Your task to perform on an android device: turn off picture-in-picture Image 0: 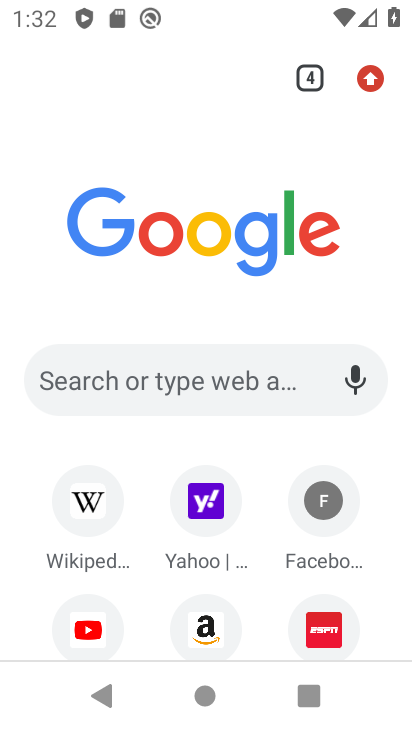
Step 0: press home button
Your task to perform on an android device: turn off picture-in-picture Image 1: 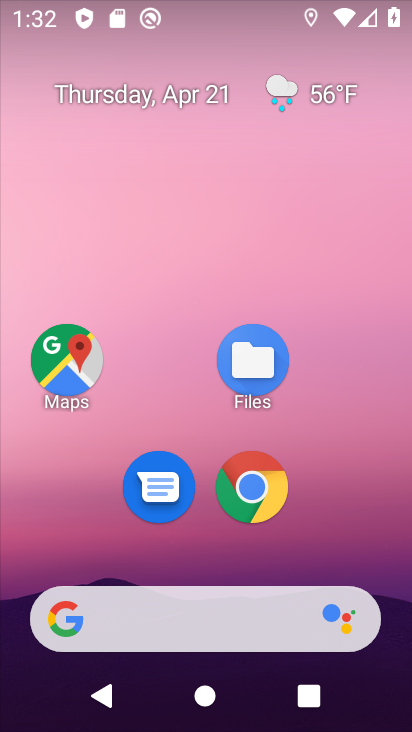
Step 1: drag from (372, 544) to (399, 99)
Your task to perform on an android device: turn off picture-in-picture Image 2: 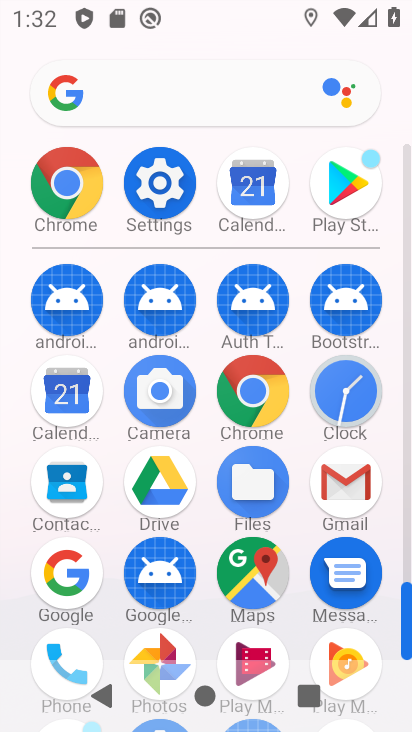
Step 2: click (164, 193)
Your task to perform on an android device: turn off picture-in-picture Image 3: 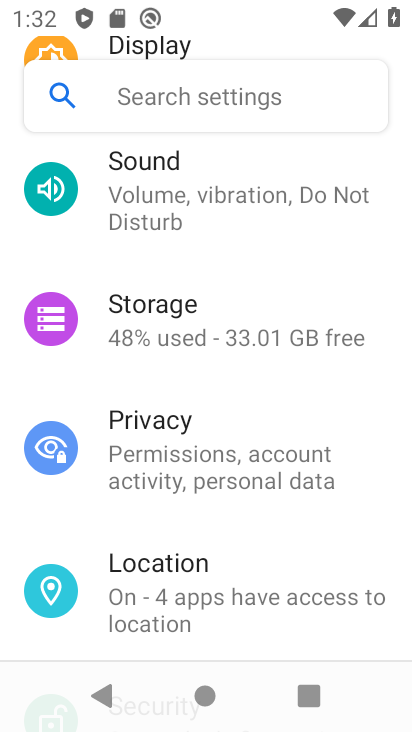
Step 3: drag from (311, 272) to (312, 516)
Your task to perform on an android device: turn off picture-in-picture Image 4: 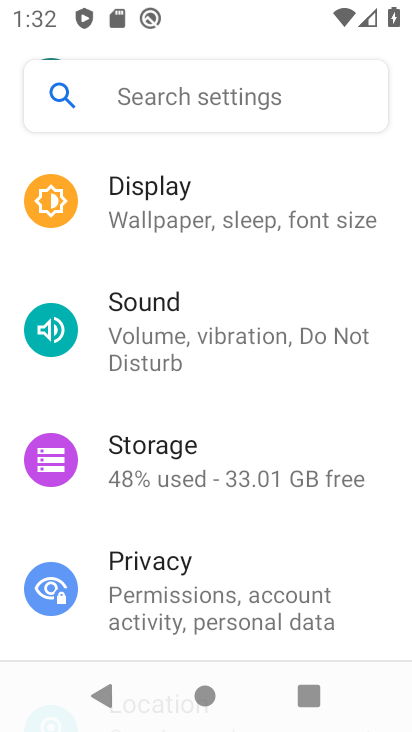
Step 4: drag from (320, 206) to (320, 471)
Your task to perform on an android device: turn off picture-in-picture Image 5: 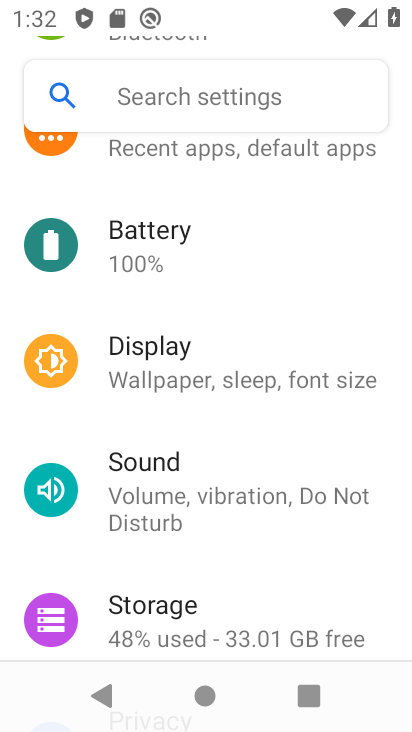
Step 5: drag from (291, 244) to (295, 454)
Your task to perform on an android device: turn off picture-in-picture Image 6: 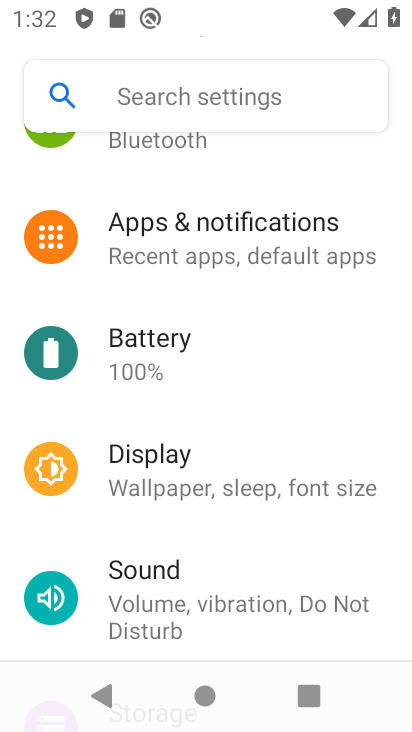
Step 6: click (279, 250)
Your task to perform on an android device: turn off picture-in-picture Image 7: 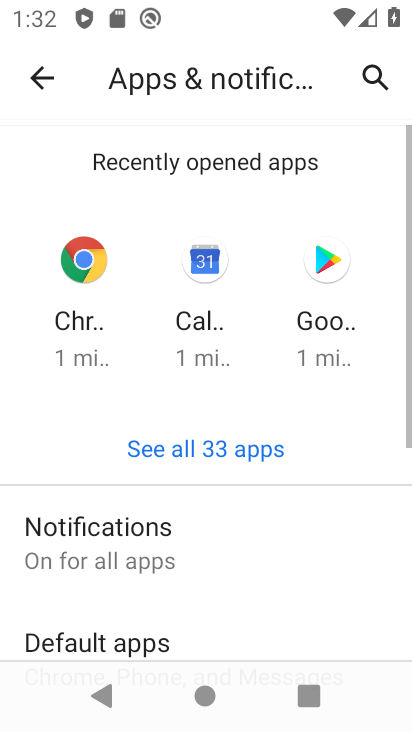
Step 7: drag from (278, 574) to (284, 243)
Your task to perform on an android device: turn off picture-in-picture Image 8: 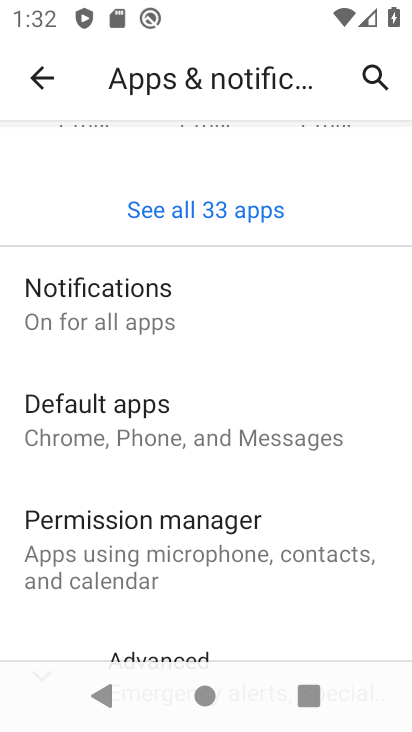
Step 8: drag from (264, 560) to (288, 307)
Your task to perform on an android device: turn off picture-in-picture Image 9: 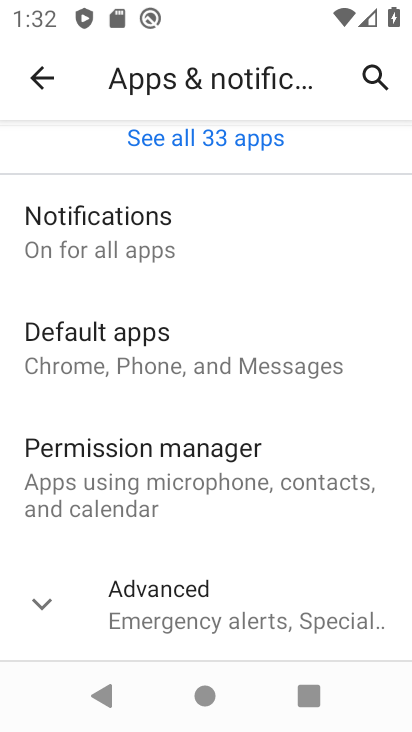
Step 9: click (279, 612)
Your task to perform on an android device: turn off picture-in-picture Image 10: 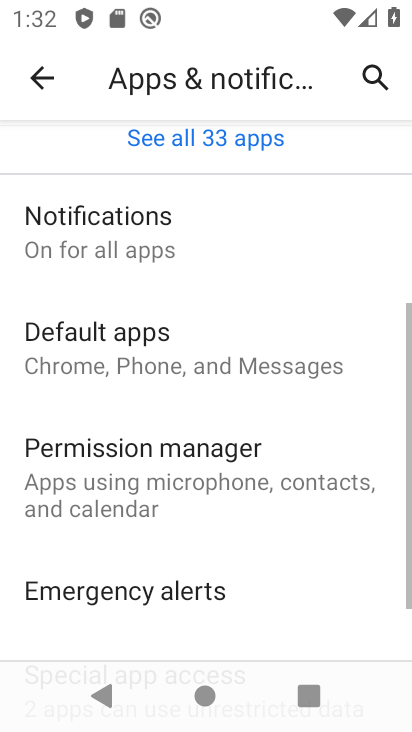
Step 10: drag from (279, 595) to (281, 273)
Your task to perform on an android device: turn off picture-in-picture Image 11: 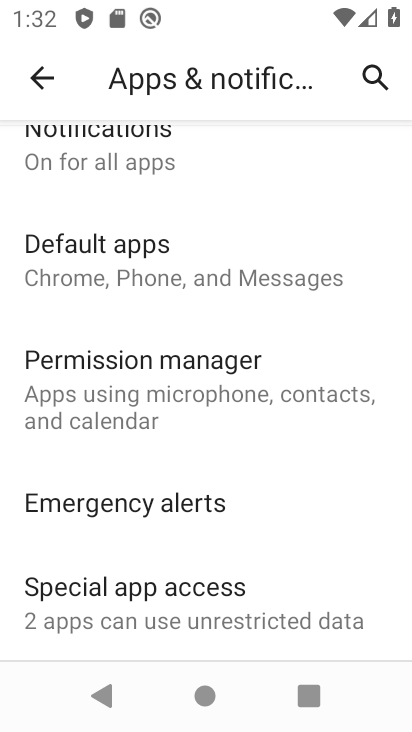
Step 11: click (239, 589)
Your task to perform on an android device: turn off picture-in-picture Image 12: 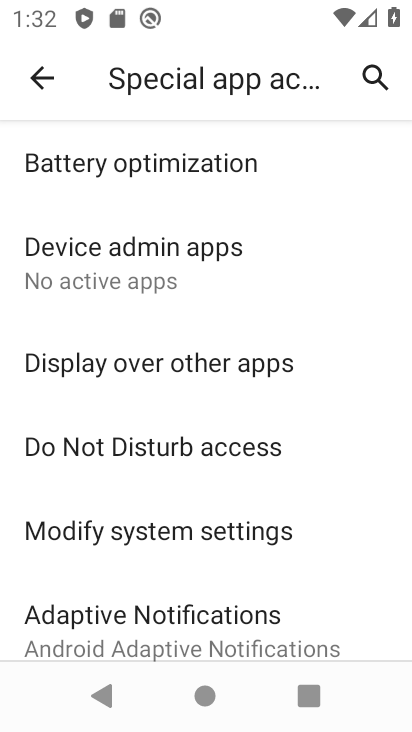
Step 12: drag from (305, 574) to (301, 275)
Your task to perform on an android device: turn off picture-in-picture Image 13: 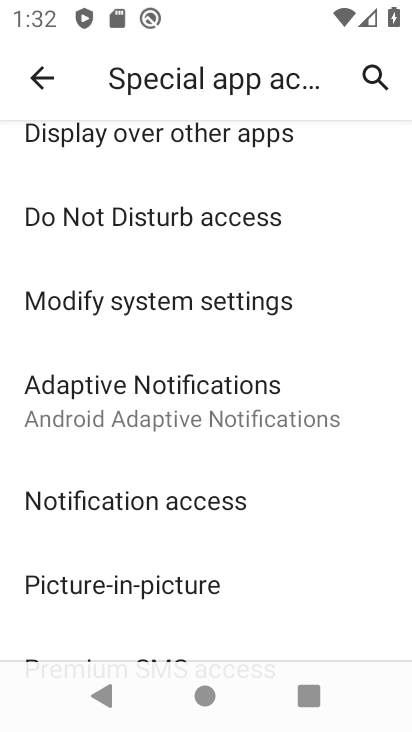
Step 13: click (213, 580)
Your task to perform on an android device: turn off picture-in-picture Image 14: 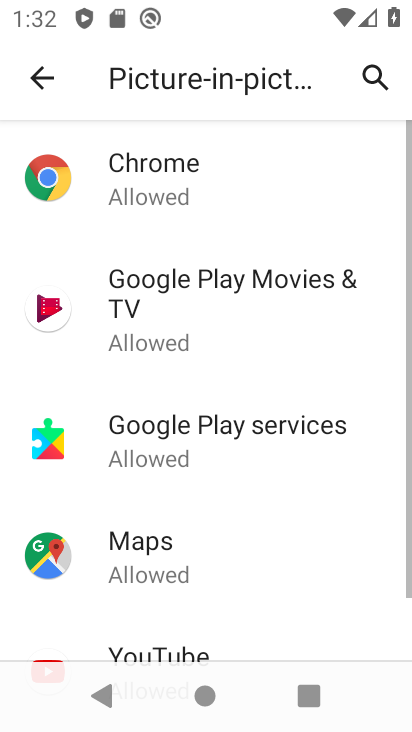
Step 14: click (216, 202)
Your task to perform on an android device: turn off picture-in-picture Image 15: 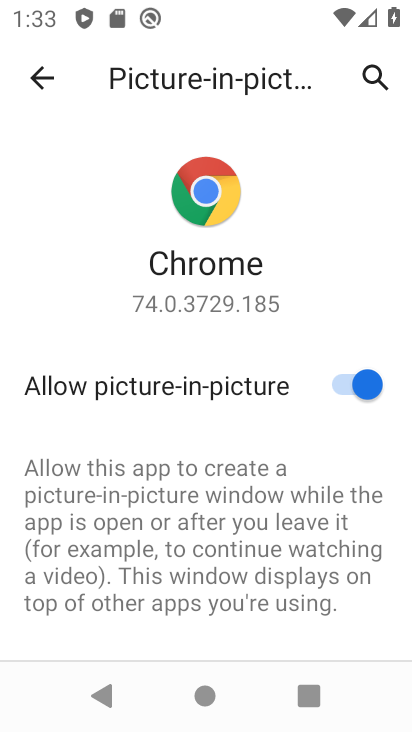
Step 15: click (336, 385)
Your task to perform on an android device: turn off picture-in-picture Image 16: 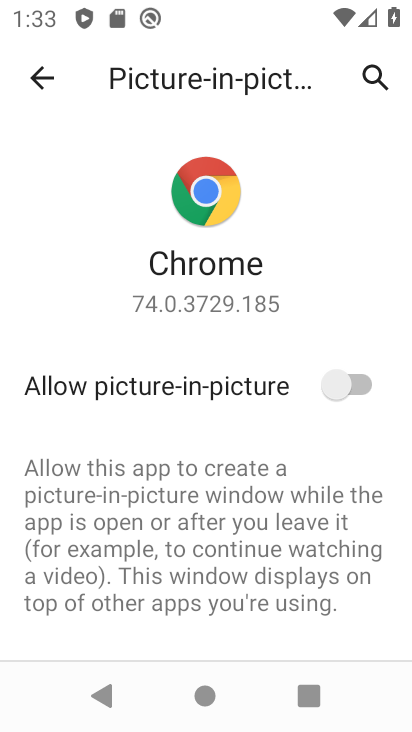
Step 16: task complete